Your task to perform on an android device: visit the assistant section in the google photos Image 0: 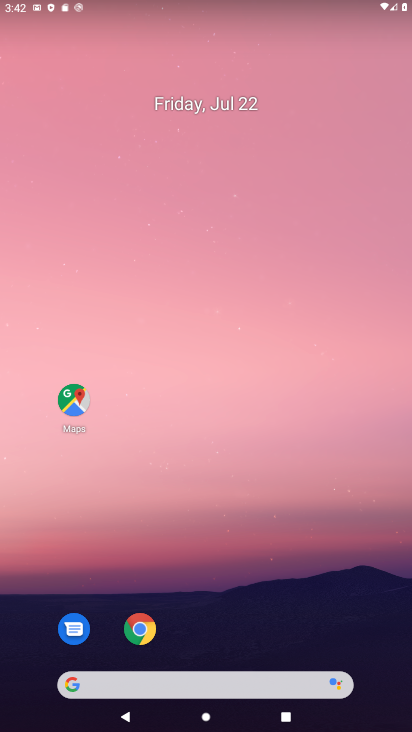
Step 0: drag from (290, 597) to (190, 1)
Your task to perform on an android device: visit the assistant section in the google photos Image 1: 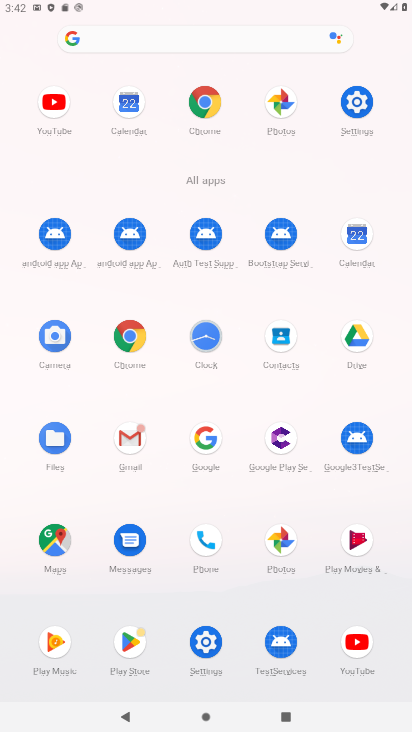
Step 1: click (284, 545)
Your task to perform on an android device: visit the assistant section in the google photos Image 2: 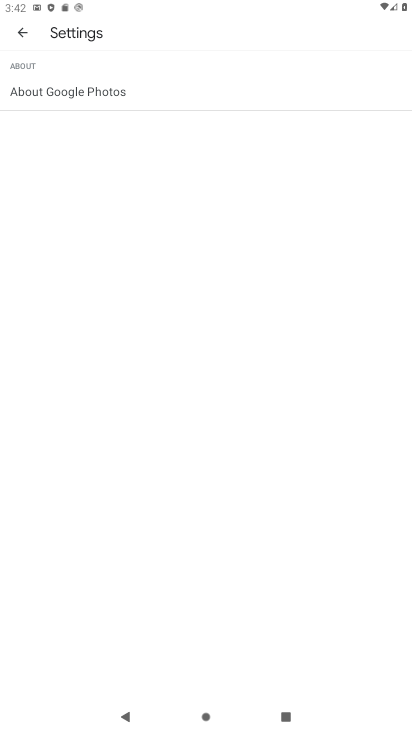
Step 2: click (20, 35)
Your task to perform on an android device: visit the assistant section in the google photos Image 3: 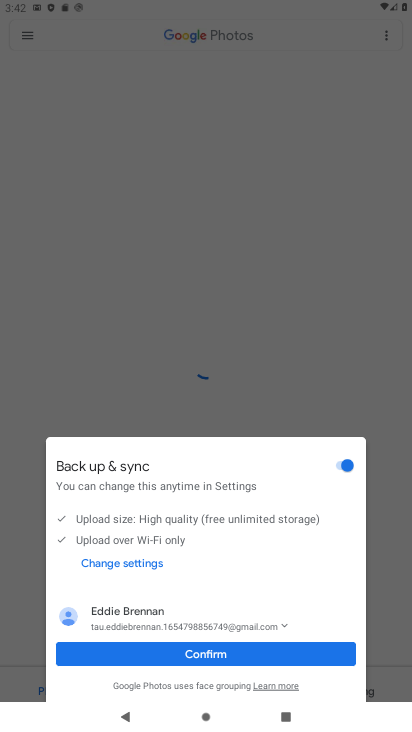
Step 3: click (271, 651)
Your task to perform on an android device: visit the assistant section in the google photos Image 4: 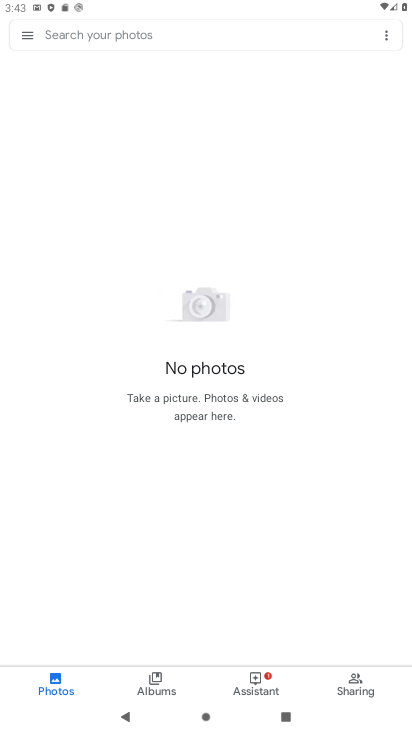
Step 4: click (262, 693)
Your task to perform on an android device: visit the assistant section in the google photos Image 5: 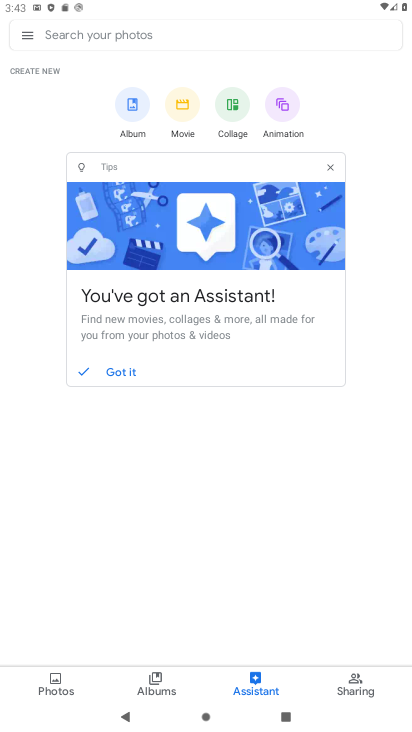
Step 5: task complete